Your task to perform on an android device: Search for pizza restaurants on Maps Image 0: 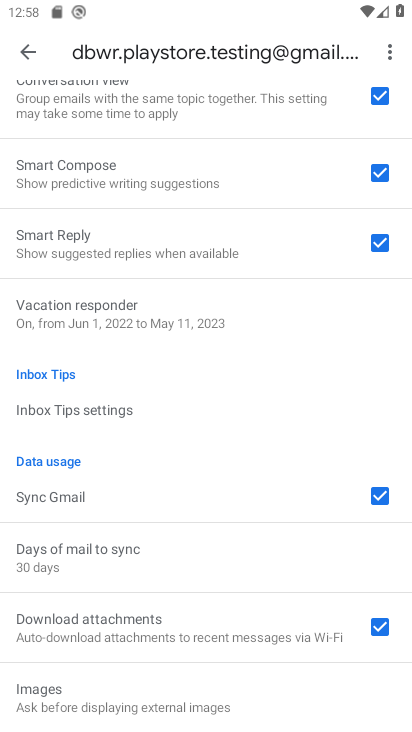
Step 0: press home button
Your task to perform on an android device: Search for pizza restaurants on Maps Image 1: 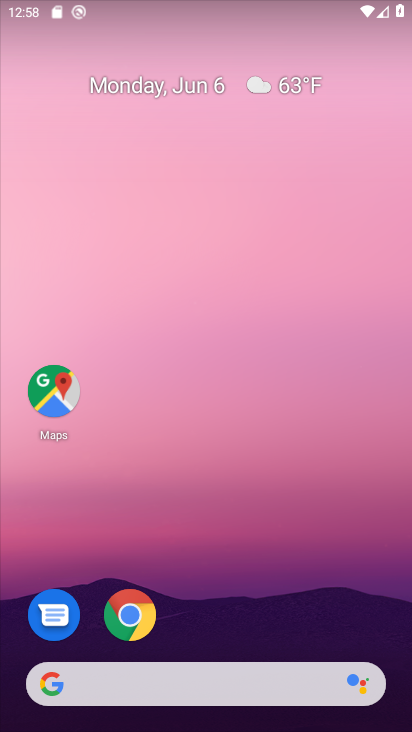
Step 1: drag from (260, 606) to (255, 37)
Your task to perform on an android device: Search for pizza restaurants on Maps Image 2: 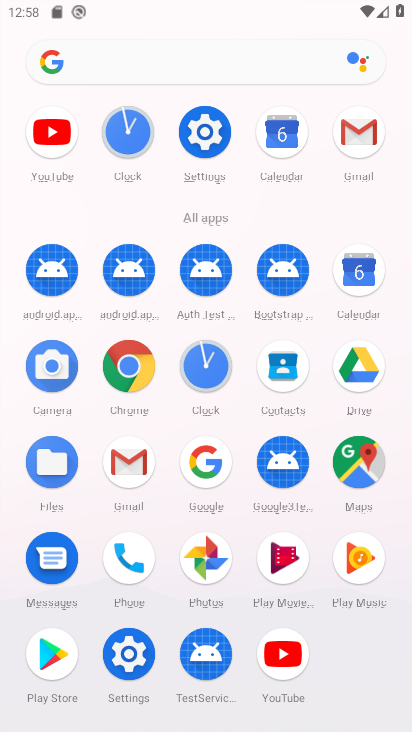
Step 2: click (349, 462)
Your task to perform on an android device: Search for pizza restaurants on Maps Image 3: 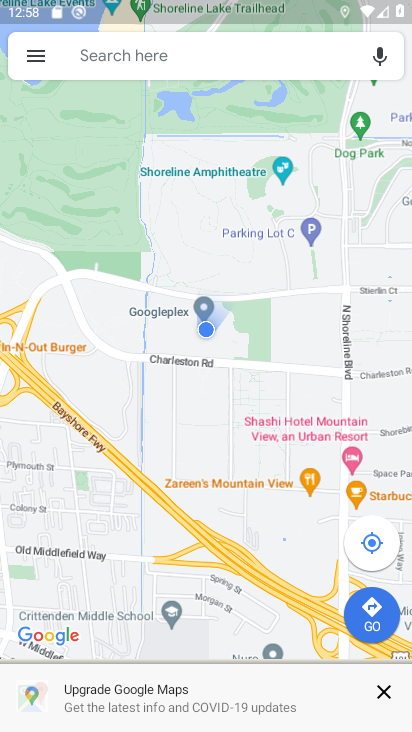
Step 3: click (176, 50)
Your task to perform on an android device: Search for pizza restaurants on Maps Image 4: 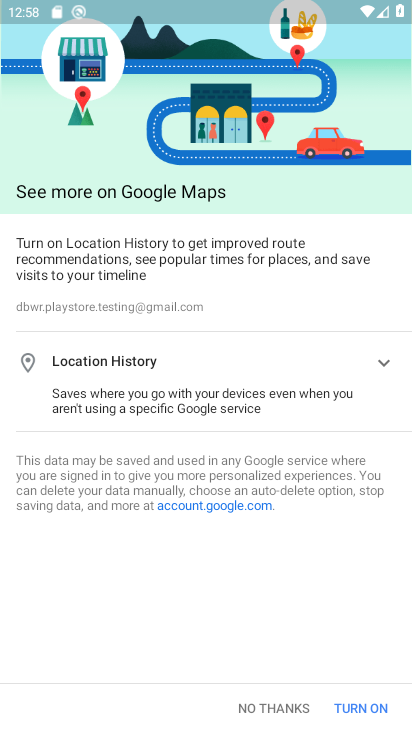
Step 4: click (280, 698)
Your task to perform on an android device: Search for pizza restaurants on Maps Image 5: 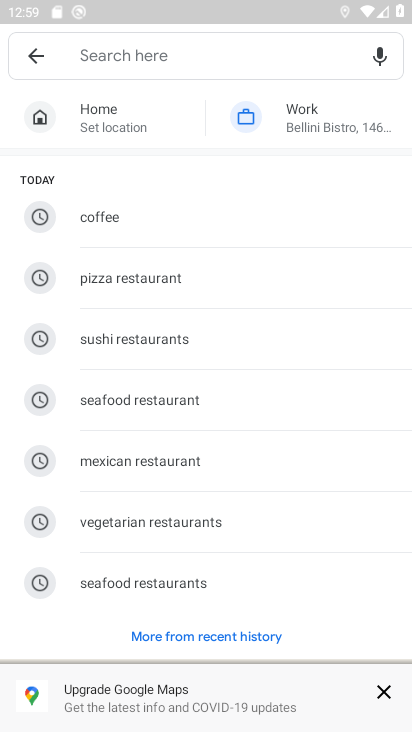
Step 5: click (130, 62)
Your task to perform on an android device: Search for pizza restaurants on Maps Image 6: 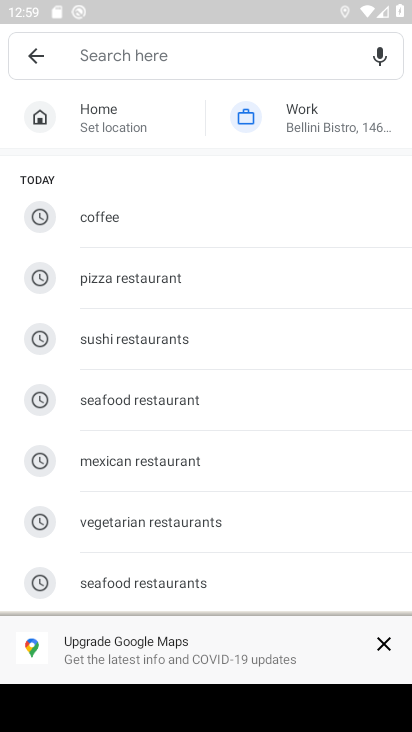
Step 6: type "pizza restaurants"
Your task to perform on an android device: Search for pizza restaurants on Maps Image 7: 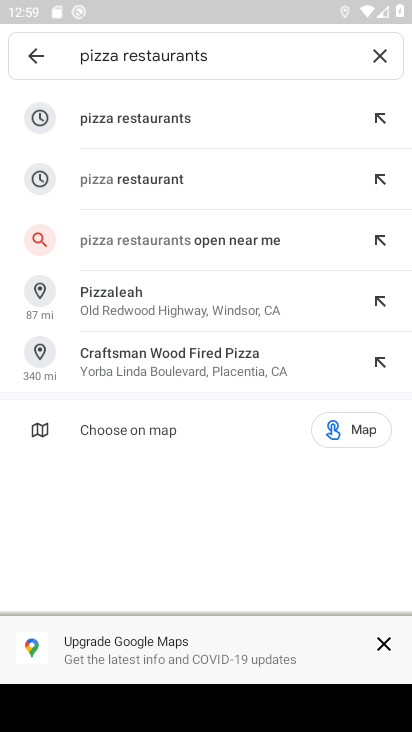
Step 7: click (146, 129)
Your task to perform on an android device: Search for pizza restaurants on Maps Image 8: 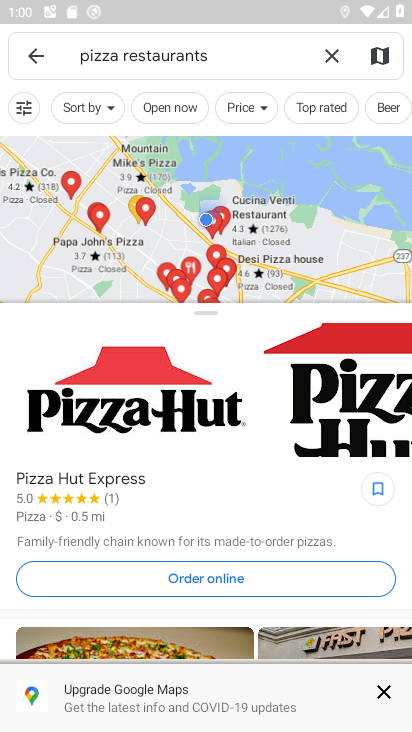
Step 8: task complete